Your task to perform on an android device: Find coffee shops on Maps Image 0: 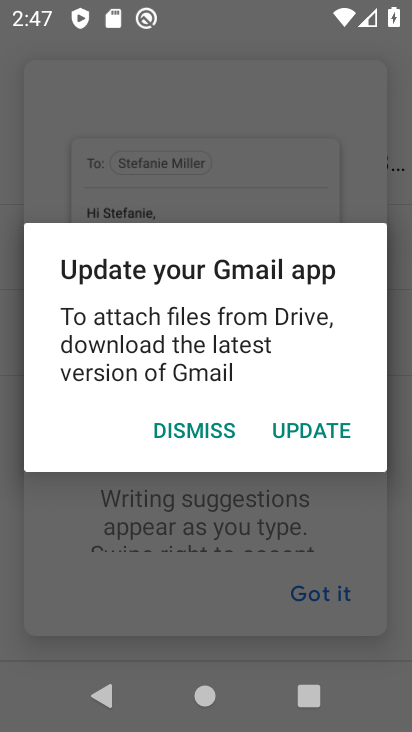
Step 0: click (183, 427)
Your task to perform on an android device: Find coffee shops on Maps Image 1: 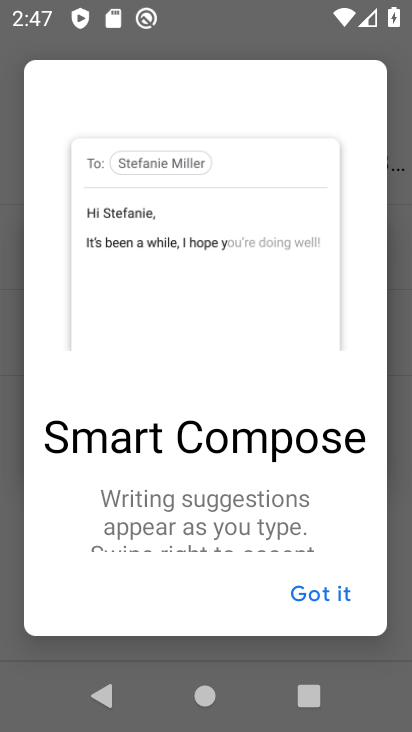
Step 1: click (338, 585)
Your task to perform on an android device: Find coffee shops on Maps Image 2: 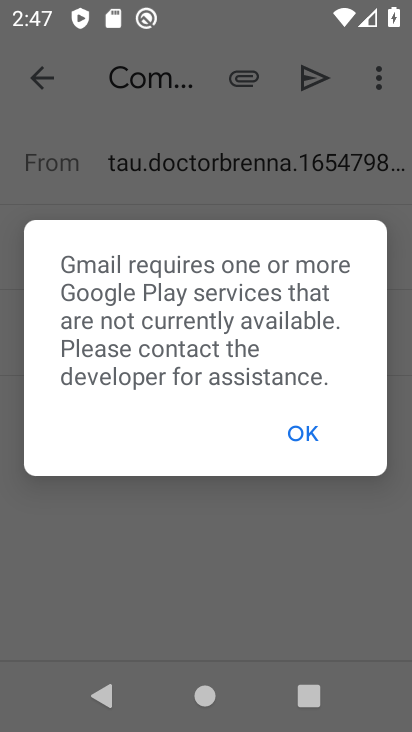
Step 2: click (306, 430)
Your task to perform on an android device: Find coffee shops on Maps Image 3: 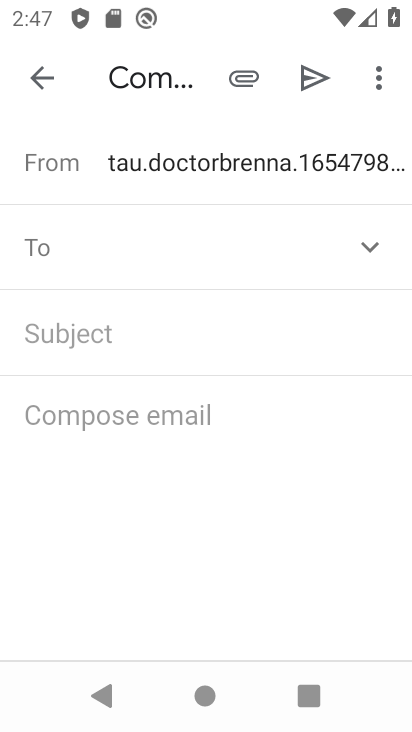
Step 3: press back button
Your task to perform on an android device: Find coffee shops on Maps Image 4: 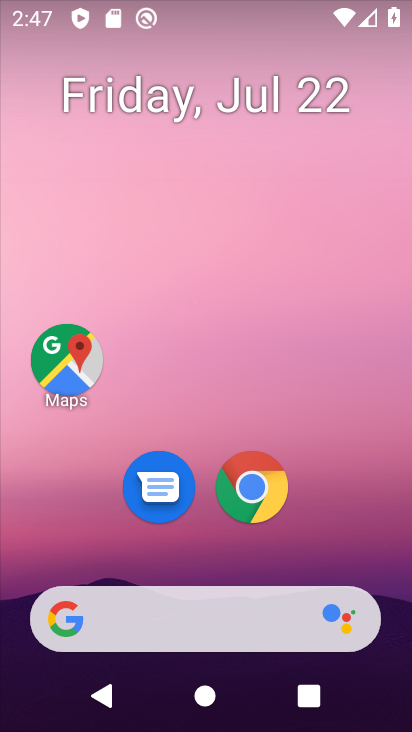
Step 4: click (57, 352)
Your task to perform on an android device: Find coffee shops on Maps Image 5: 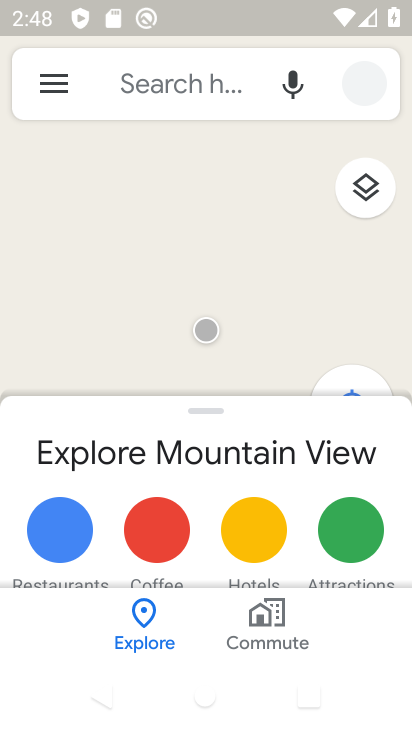
Step 5: click (189, 78)
Your task to perform on an android device: Find coffee shops on Maps Image 6: 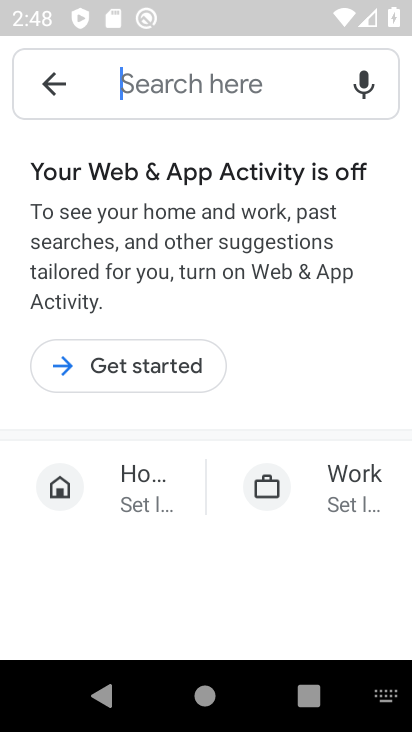
Step 6: click (172, 81)
Your task to perform on an android device: Find coffee shops on Maps Image 7: 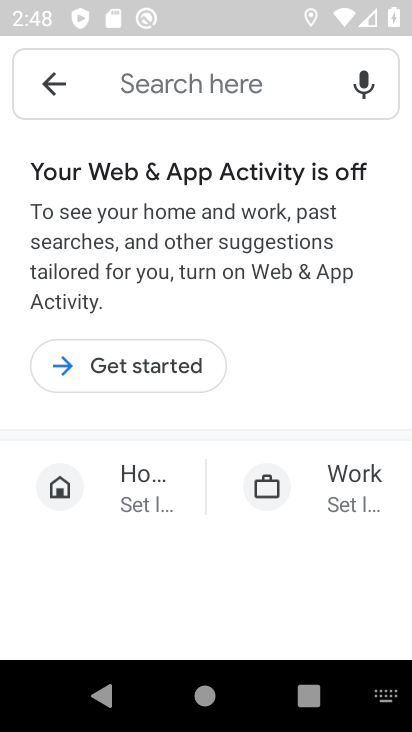
Step 7: click (153, 91)
Your task to perform on an android device: Find coffee shops on Maps Image 8: 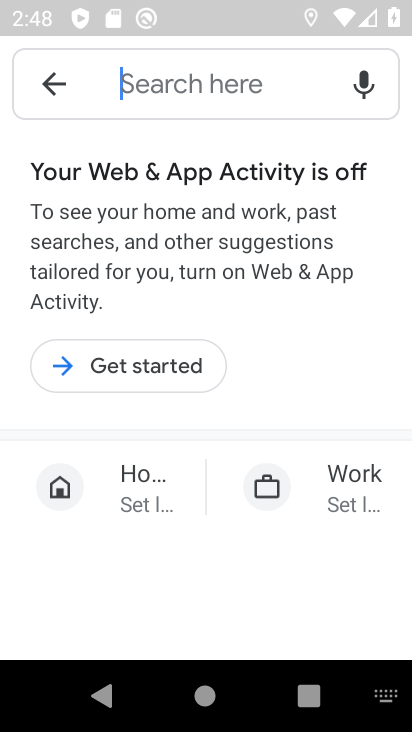
Step 8: type "coffee shops"
Your task to perform on an android device: Find coffee shops on Maps Image 9: 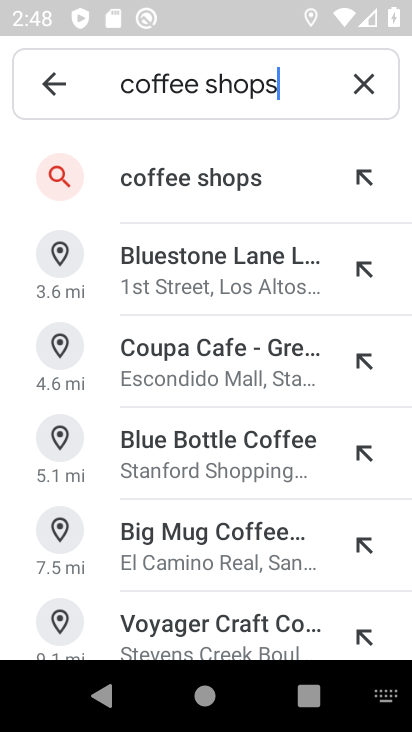
Step 9: click (191, 171)
Your task to perform on an android device: Find coffee shops on Maps Image 10: 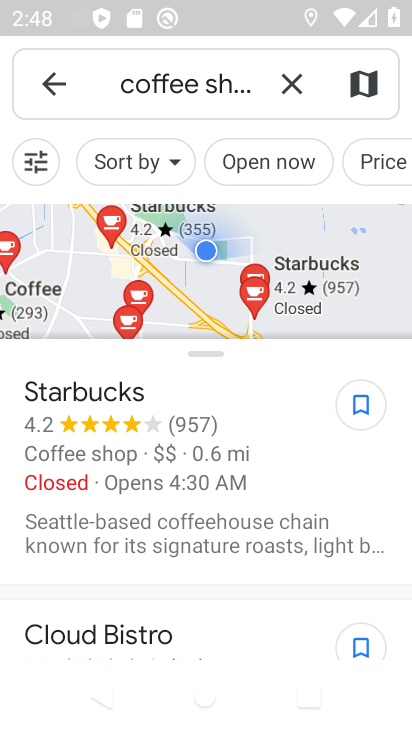
Step 10: task complete